Your task to perform on an android device: What's the weather going to be this weekend? Image 0: 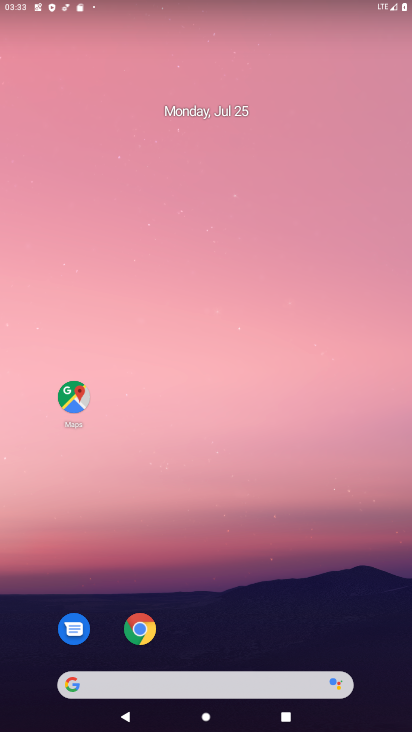
Step 0: click (166, 685)
Your task to perform on an android device: What's the weather going to be this weekend? Image 1: 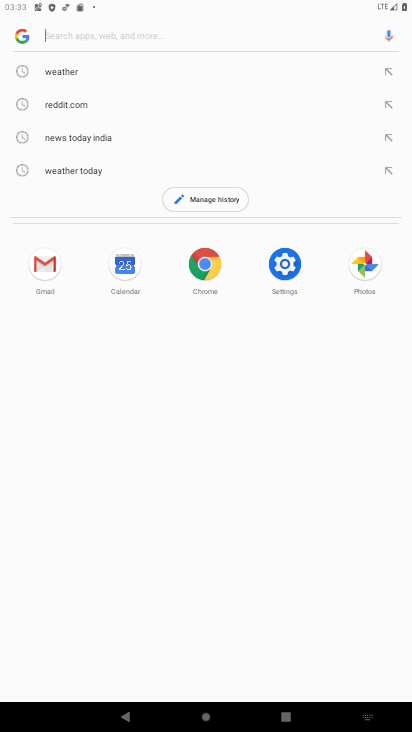
Step 1: click (44, 75)
Your task to perform on an android device: What's the weather going to be this weekend? Image 2: 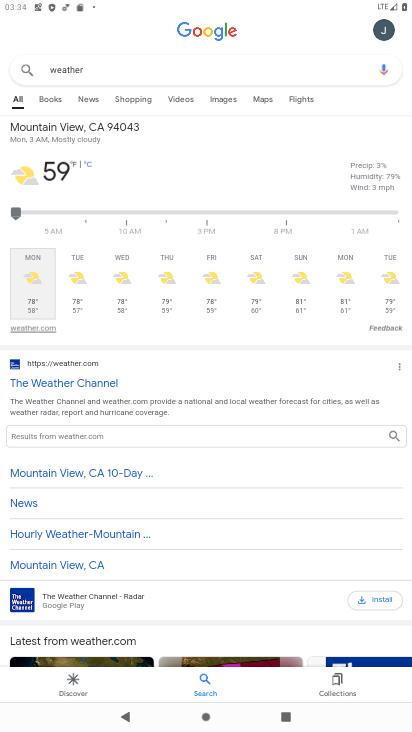
Step 2: click (256, 306)
Your task to perform on an android device: What's the weather going to be this weekend? Image 3: 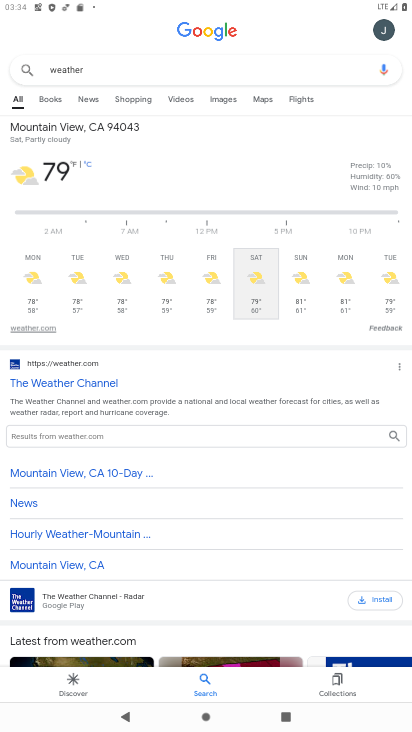
Step 3: task complete